Your task to perform on an android device: Open display settings Image 0: 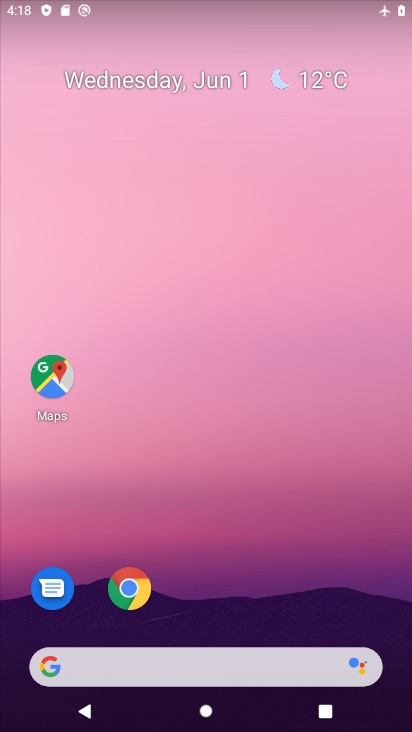
Step 0: drag from (328, 537) to (306, 0)
Your task to perform on an android device: Open display settings Image 1: 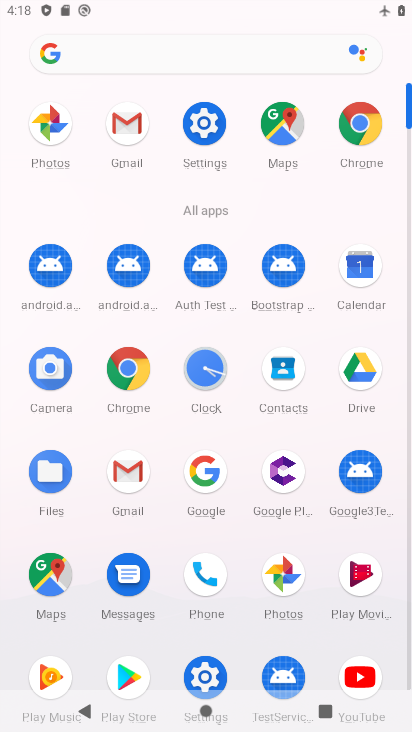
Step 1: click (210, 124)
Your task to perform on an android device: Open display settings Image 2: 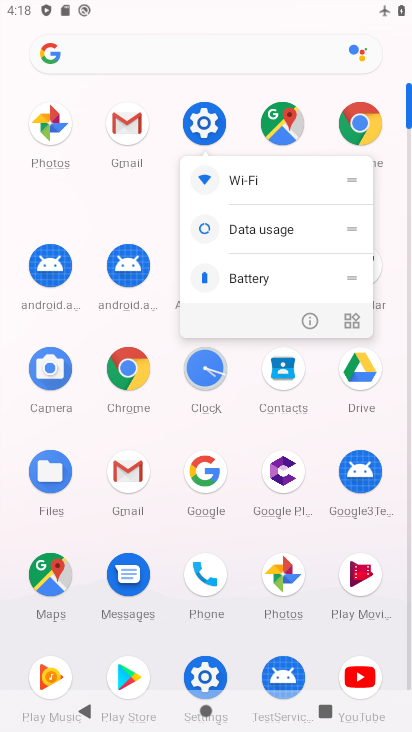
Step 2: click (210, 122)
Your task to perform on an android device: Open display settings Image 3: 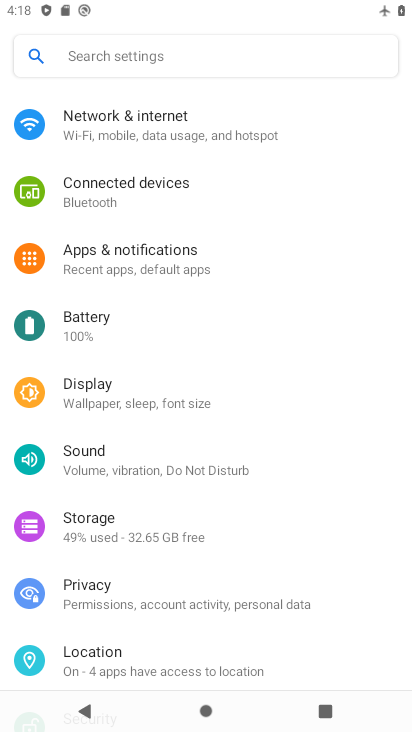
Step 3: click (119, 388)
Your task to perform on an android device: Open display settings Image 4: 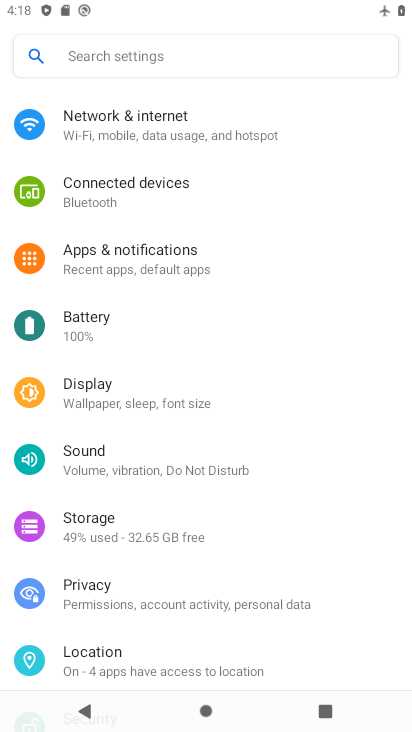
Step 4: click (120, 396)
Your task to perform on an android device: Open display settings Image 5: 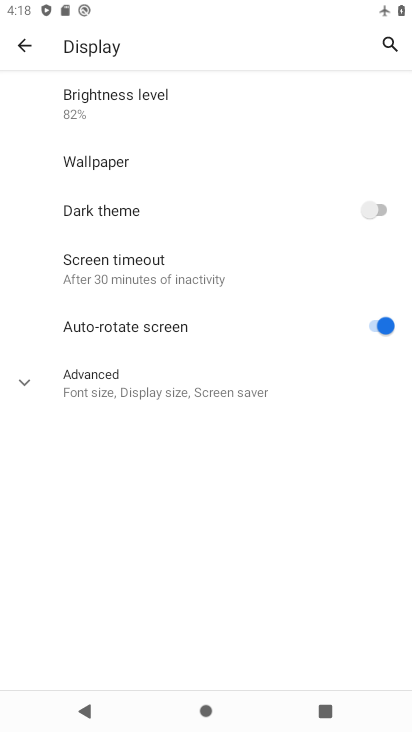
Step 5: task complete